Your task to perform on an android device: Show me popular games on the Play Store Image 0: 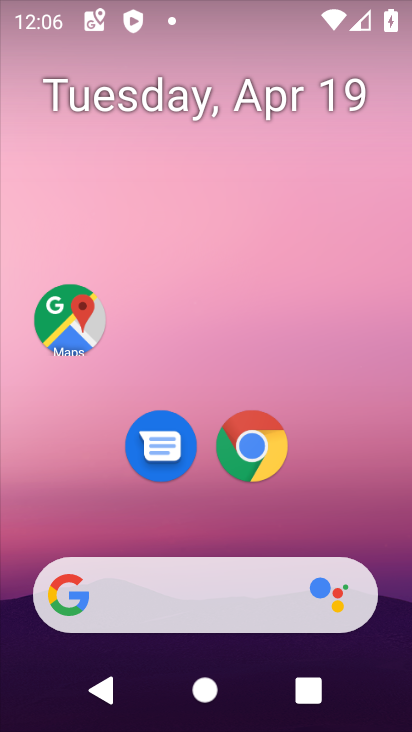
Step 0: drag from (303, 501) to (402, 65)
Your task to perform on an android device: Show me popular games on the Play Store Image 1: 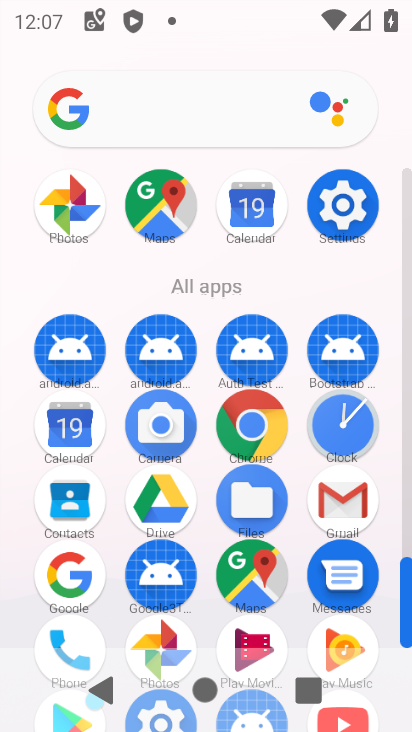
Step 1: drag from (310, 469) to (309, 193)
Your task to perform on an android device: Show me popular games on the Play Store Image 2: 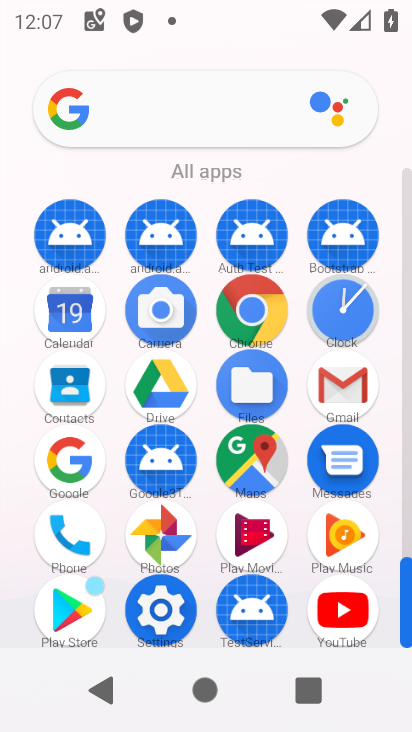
Step 2: click (81, 601)
Your task to perform on an android device: Show me popular games on the Play Store Image 3: 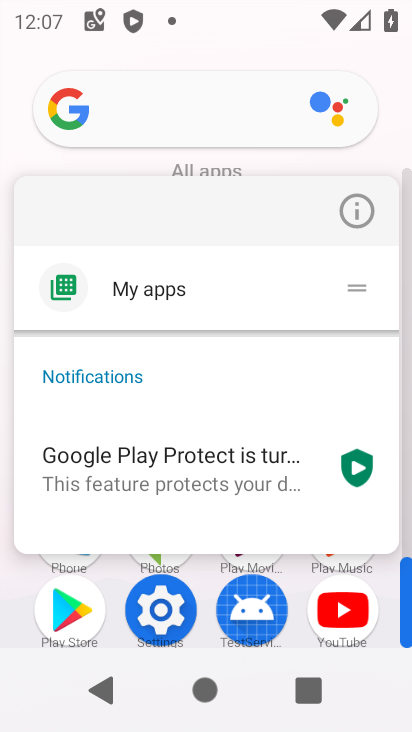
Step 3: click (81, 601)
Your task to perform on an android device: Show me popular games on the Play Store Image 4: 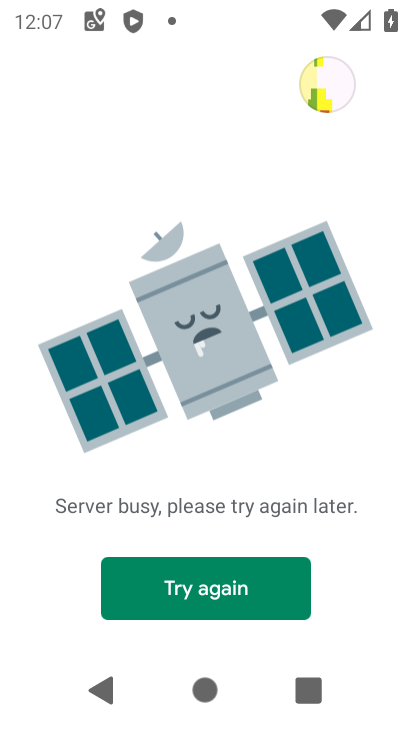
Step 4: click (141, 578)
Your task to perform on an android device: Show me popular games on the Play Store Image 5: 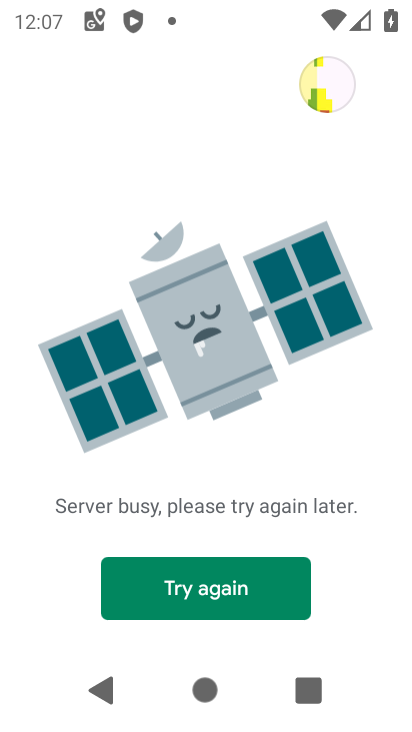
Step 5: click (141, 578)
Your task to perform on an android device: Show me popular games on the Play Store Image 6: 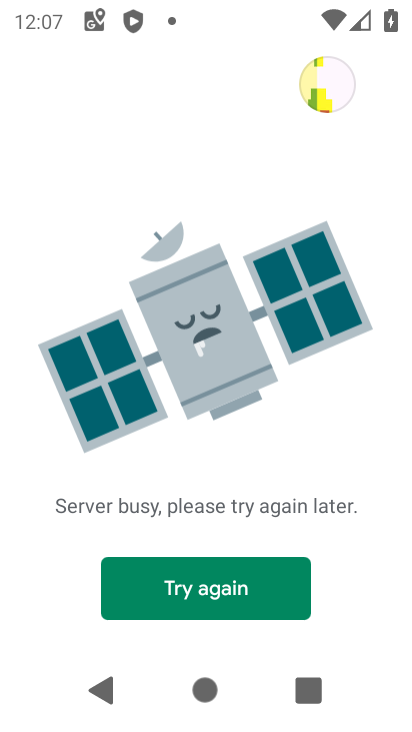
Step 6: click (141, 578)
Your task to perform on an android device: Show me popular games on the Play Store Image 7: 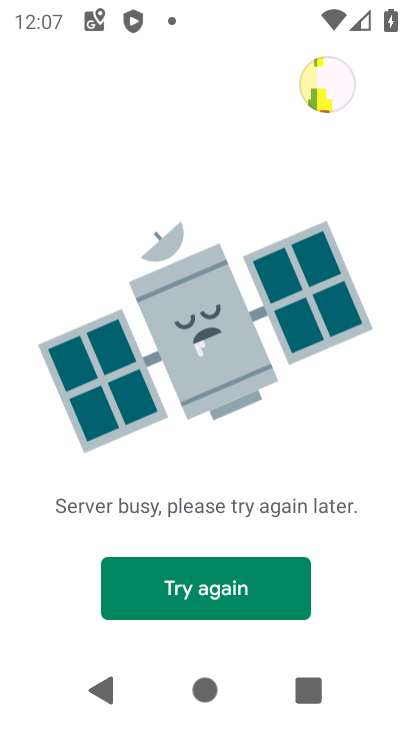
Step 7: click (141, 578)
Your task to perform on an android device: Show me popular games on the Play Store Image 8: 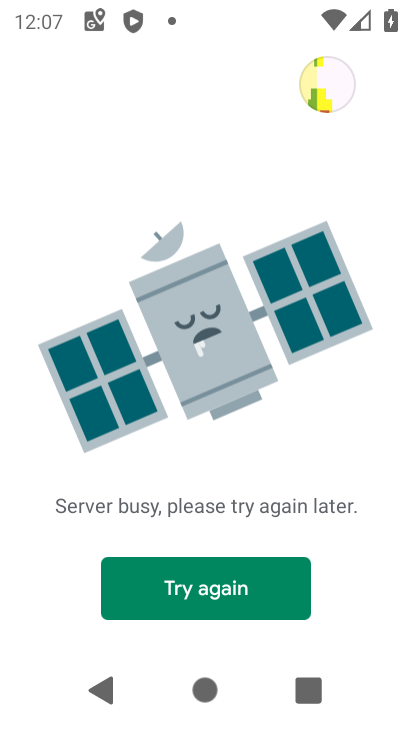
Step 8: task complete